Your task to perform on an android device: turn pop-ups off in chrome Image 0: 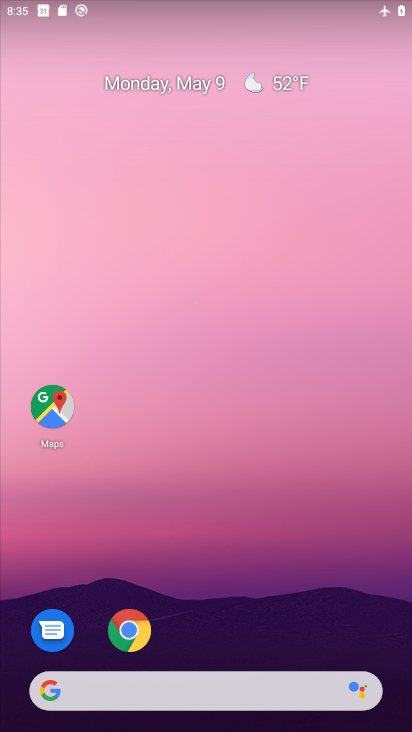
Step 0: click (142, 620)
Your task to perform on an android device: turn pop-ups off in chrome Image 1: 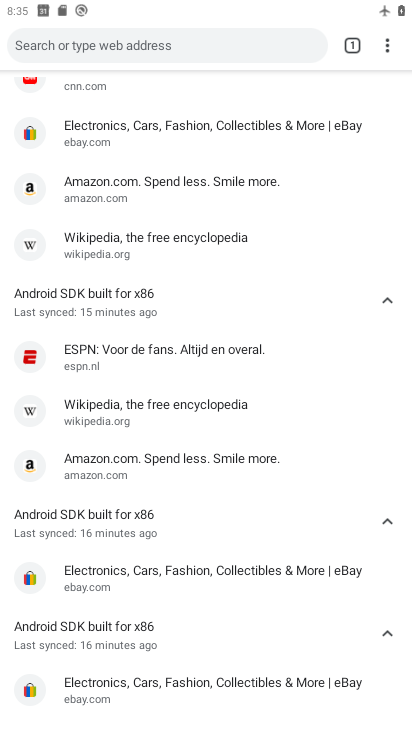
Step 1: click (383, 45)
Your task to perform on an android device: turn pop-ups off in chrome Image 2: 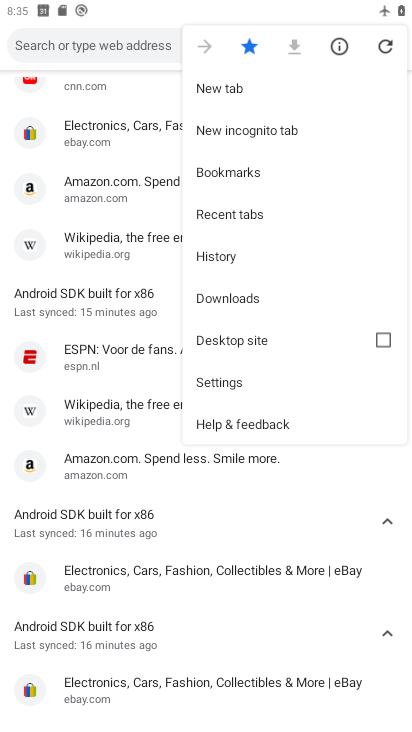
Step 2: click (239, 385)
Your task to perform on an android device: turn pop-ups off in chrome Image 3: 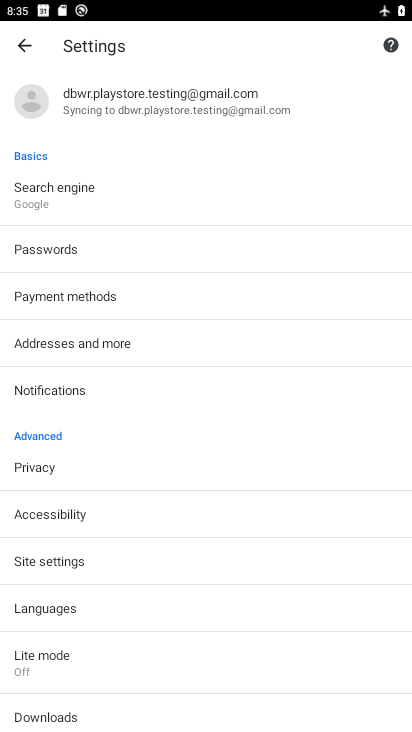
Step 3: click (64, 562)
Your task to perform on an android device: turn pop-ups off in chrome Image 4: 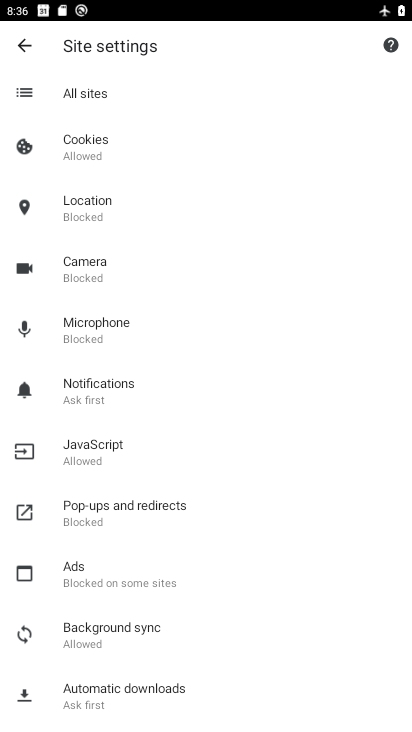
Step 4: click (121, 524)
Your task to perform on an android device: turn pop-ups off in chrome Image 5: 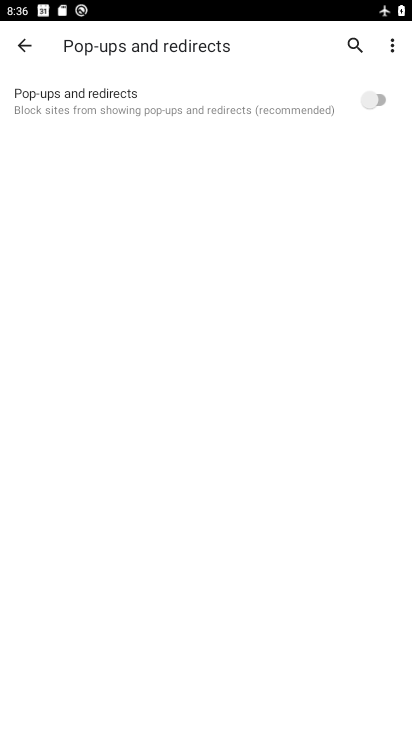
Step 5: task complete